Your task to perform on an android device: Open Reddit.com Image 0: 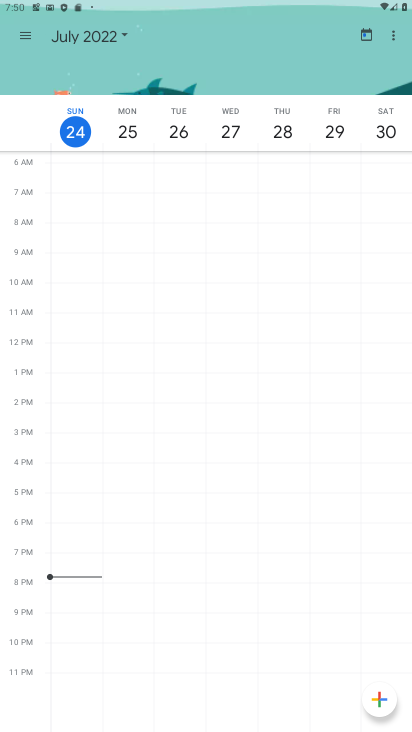
Step 0: press home button
Your task to perform on an android device: Open Reddit.com Image 1: 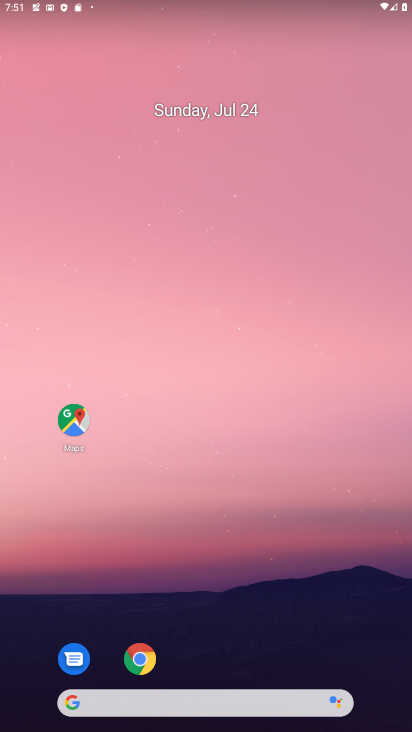
Step 1: click (150, 700)
Your task to perform on an android device: Open Reddit.com Image 2: 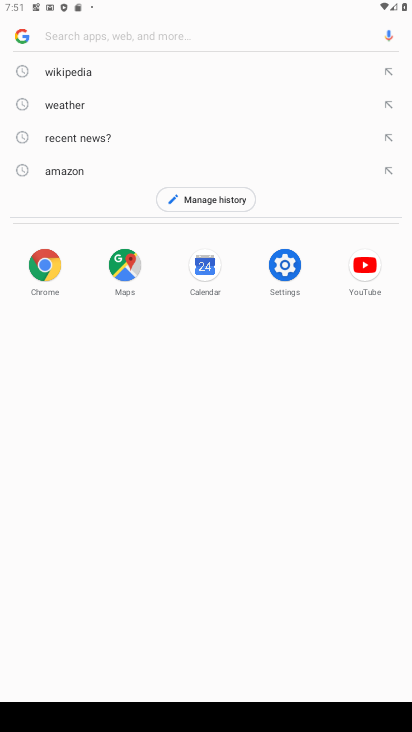
Step 2: type "reddit.com"
Your task to perform on an android device: Open Reddit.com Image 3: 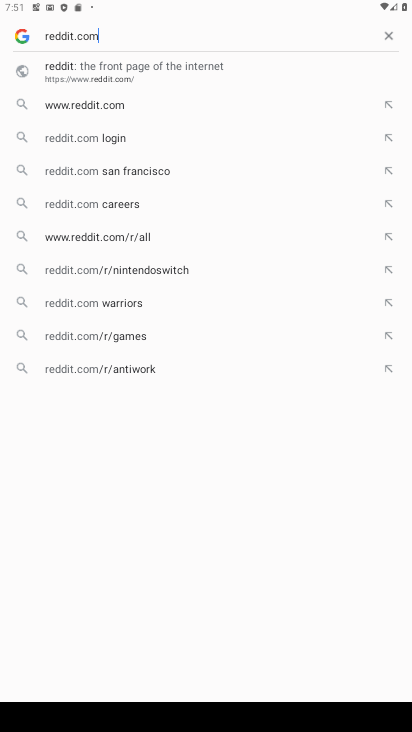
Step 3: click (91, 106)
Your task to perform on an android device: Open Reddit.com Image 4: 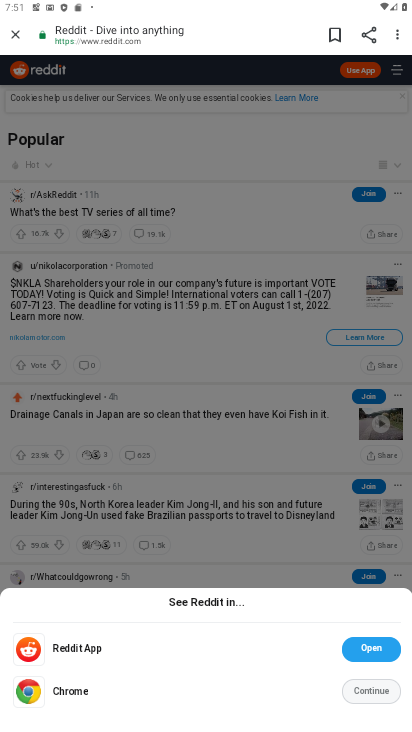
Step 4: task complete